Your task to perform on an android device: Open privacy settings Image 0: 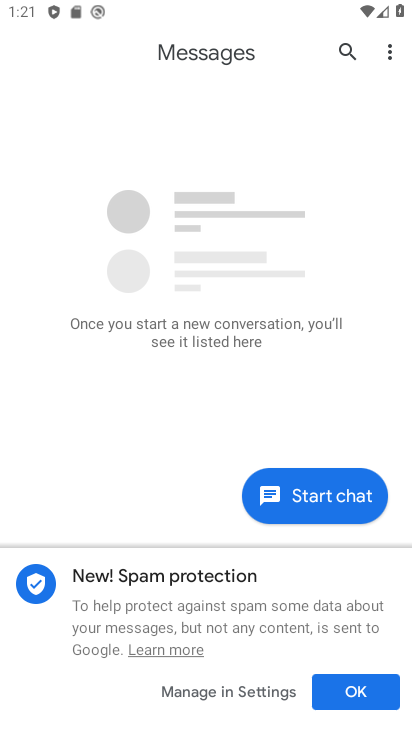
Step 0: press home button
Your task to perform on an android device: Open privacy settings Image 1: 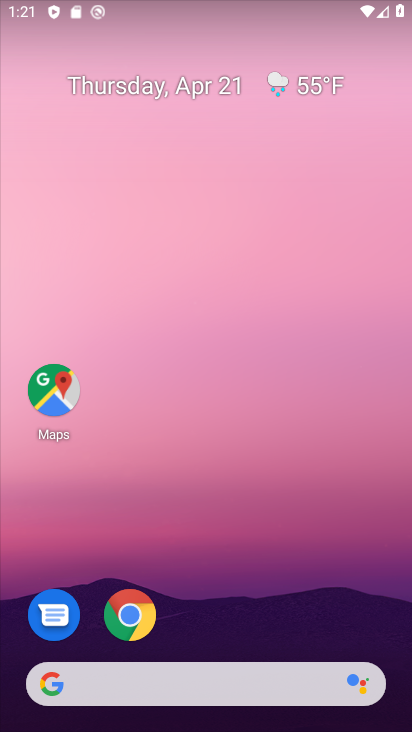
Step 1: drag from (177, 659) to (226, 261)
Your task to perform on an android device: Open privacy settings Image 2: 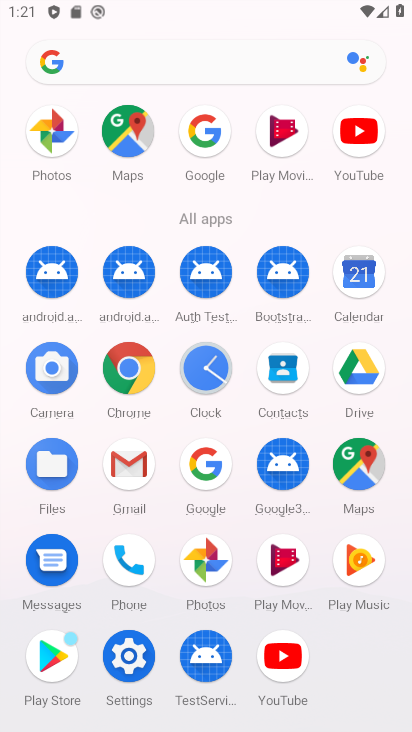
Step 2: click (126, 657)
Your task to perform on an android device: Open privacy settings Image 3: 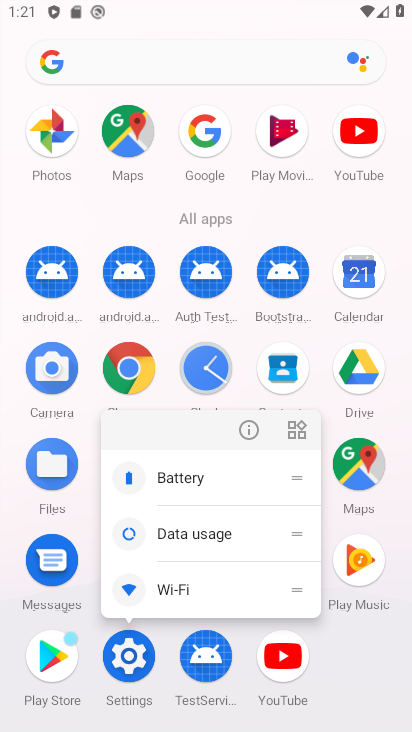
Step 3: click (126, 657)
Your task to perform on an android device: Open privacy settings Image 4: 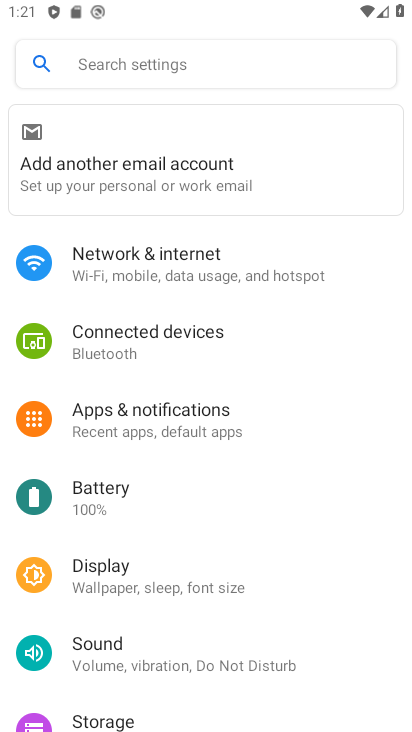
Step 4: drag from (166, 703) to (214, 353)
Your task to perform on an android device: Open privacy settings Image 5: 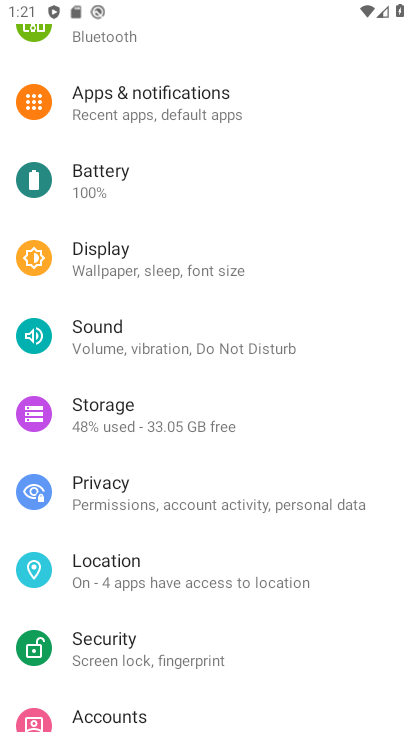
Step 5: click (123, 496)
Your task to perform on an android device: Open privacy settings Image 6: 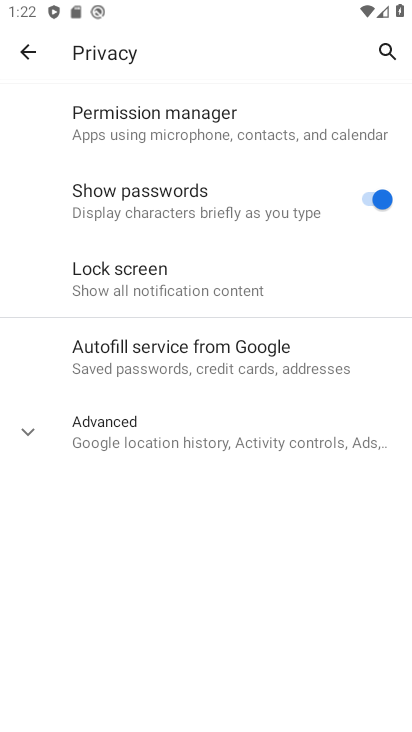
Step 6: click (118, 435)
Your task to perform on an android device: Open privacy settings Image 7: 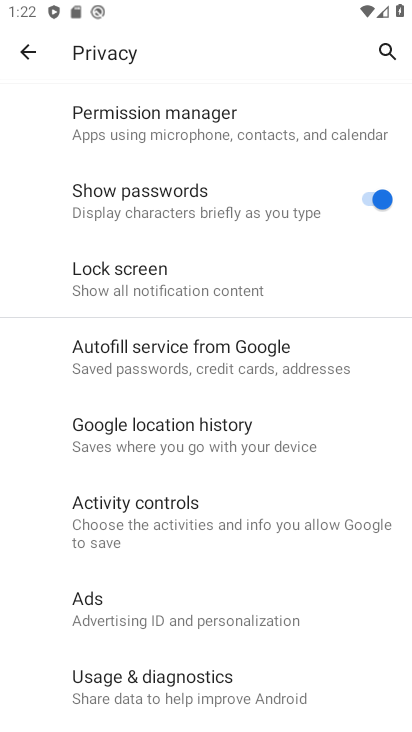
Step 7: task complete